Your task to perform on an android device: Open internet settings Image 0: 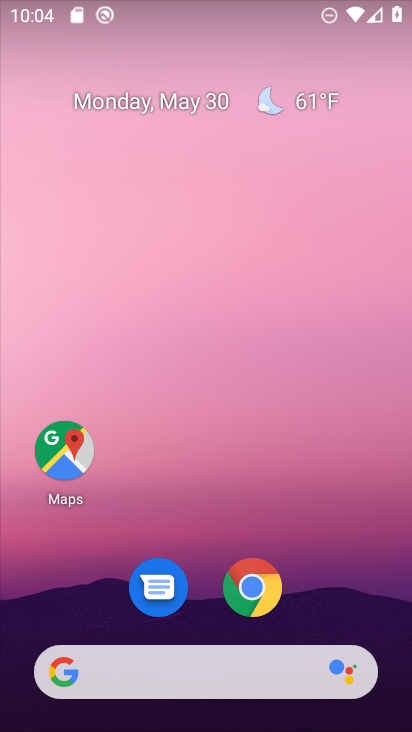
Step 0: drag from (212, 645) to (198, 42)
Your task to perform on an android device: Open internet settings Image 1: 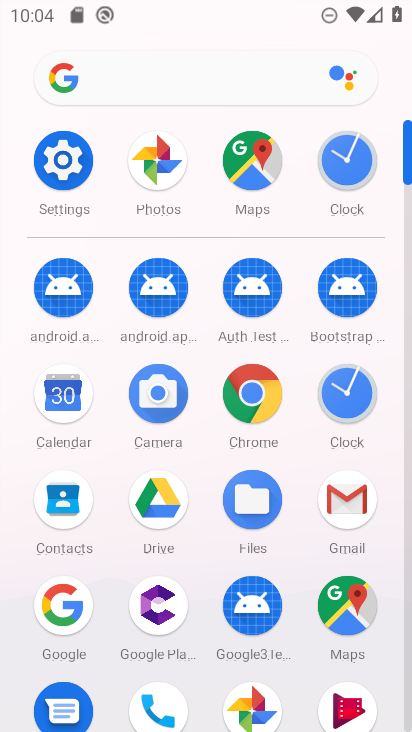
Step 1: click (51, 157)
Your task to perform on an android device: Open internet settings Image 2: 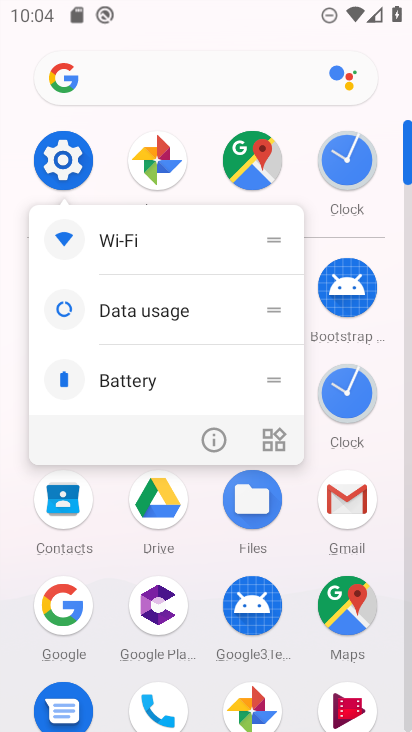
Step 2: click (49, 157)
Your task to perform on an android device: Open internet settings Image 3: 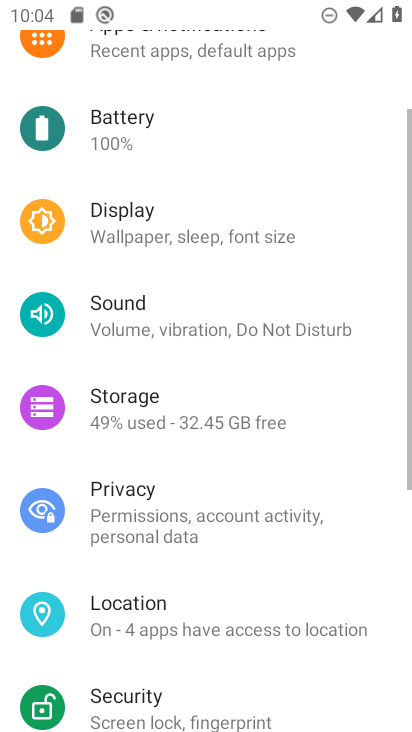
Step 3: drag from (139, 130) to (154, 725)
Your task to perform on an android device: Open internet settings Image 4: 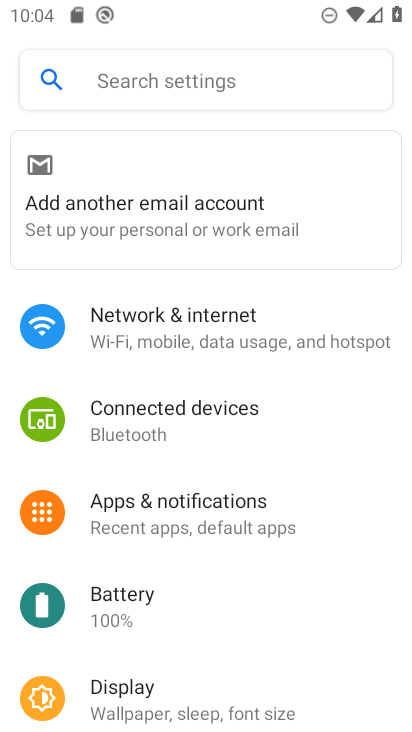
Step 4: click (198, 329)
Your task to perform on an android device: Open internet settings Image 5: 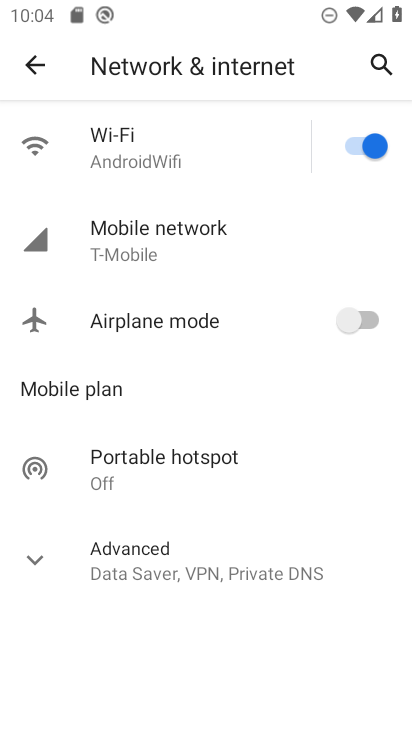
Step 5: click (192, 251)
Your task to perform on an android device: Open internet settings Image 6: 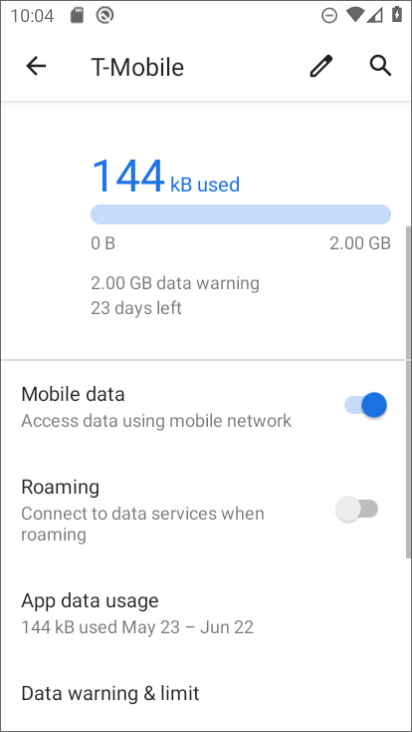
Step 6: task complete